Your task to perform on an android device: What's the weather today? Image 0: 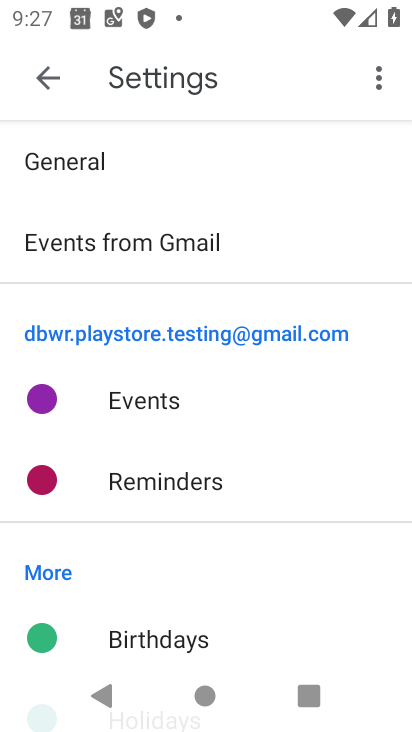
Step 0: press home button
Your task to perform on an android device: What's the weather today? Image 1: 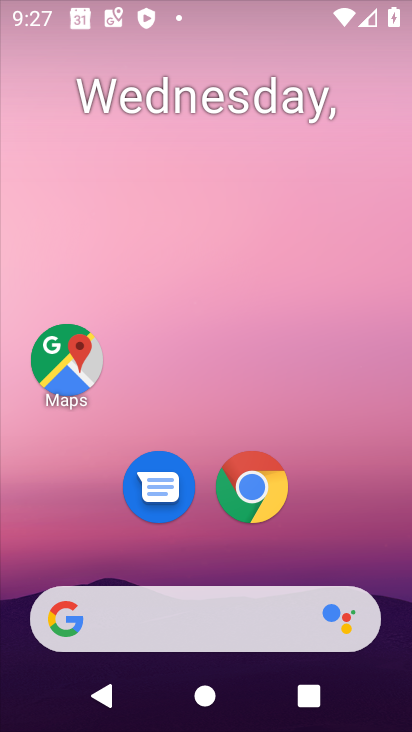
Step 1: drag from (236, 664) to (174, 247)
Your task to perform on an android device: What's the weather today? Image 2: 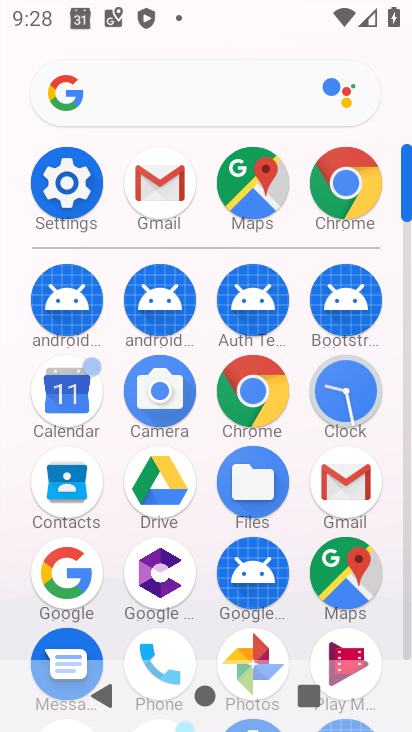
Step 2: click (119, 106)
Your task to perform on an android device: What's the weather today? Image 3: 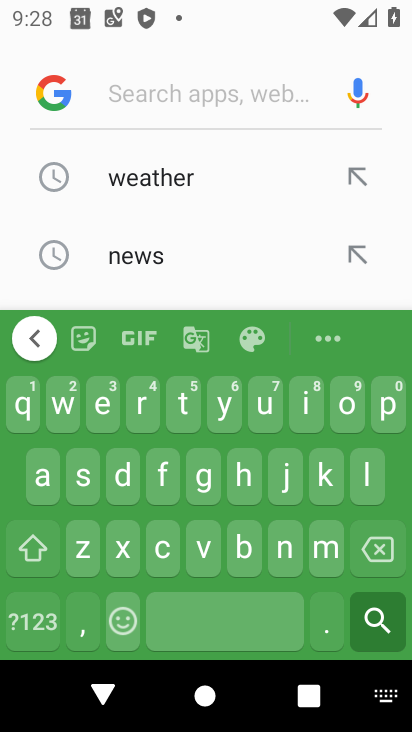
Step 3: click (159, 168)
Your task to perform on an android device: What's the weather today? Image 4: 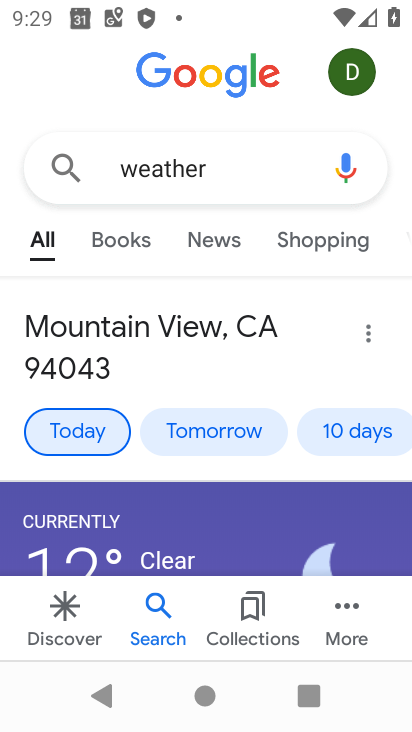
Step 4: click (81, 427)
Your task to perform on an android device: What's the weather today? Image 5: 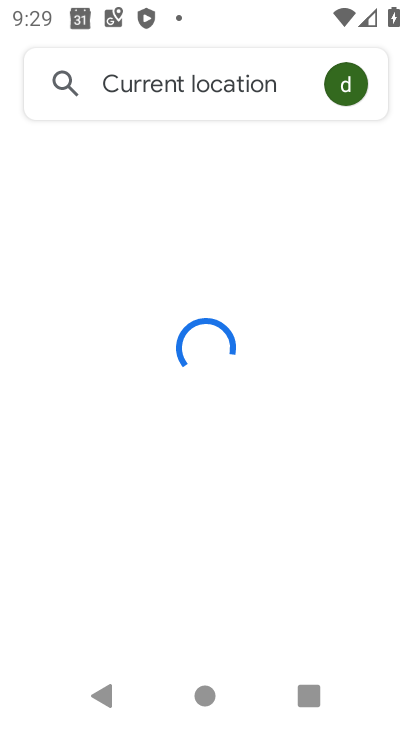
Step 5: task complete